Your task to perform on an android device: move an email to a new category in the gmail app Image 0: 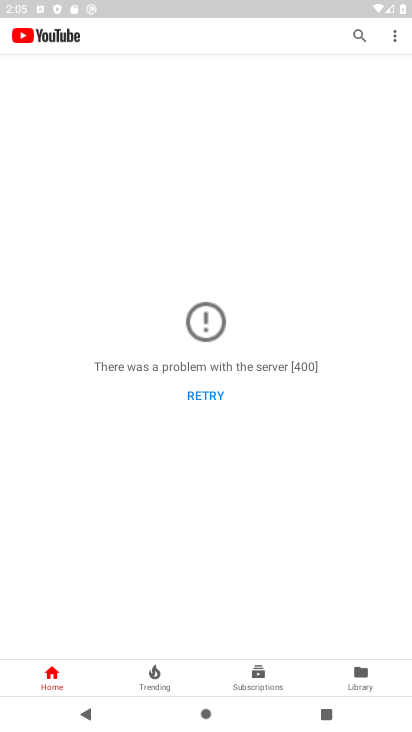
Step 0: press home button
Your task to perform on an android device: move an email to a new category in the gmail app Image 1: 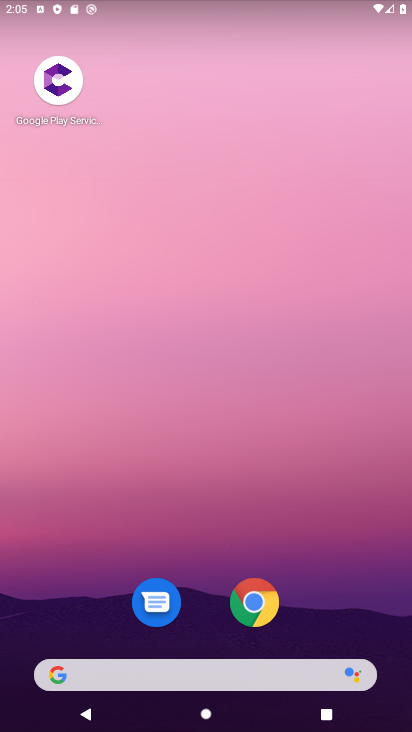
Step 1: drag from (216, 533) to (213, 302)
Your task to perform on an android device: move an email to a new category in the gmail app Image 2: 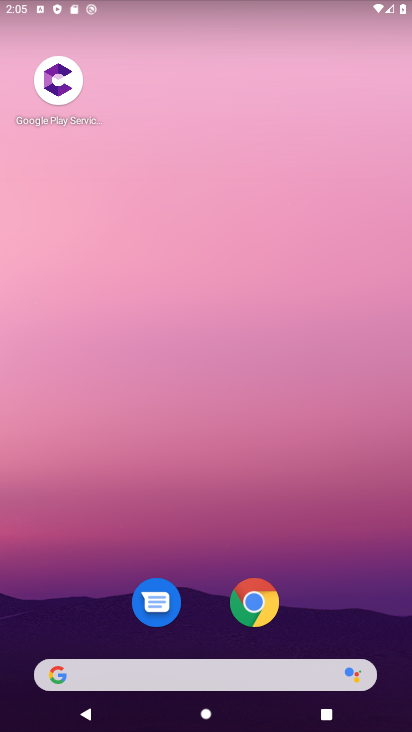
Step 2: drag from (297, 553) to (271, 154)
Your task to perform on an android device: move an email to a new category in the gmail app Image 3: 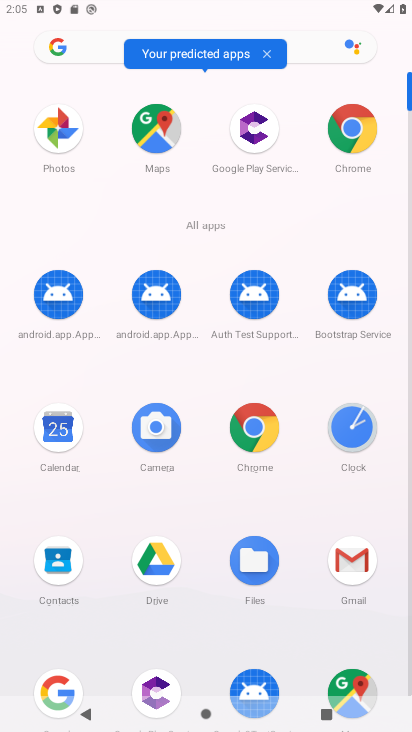
Step 3: click (355, 554)
Your task to perform on an android device: move an email to a new category in the gmail app Image 4: 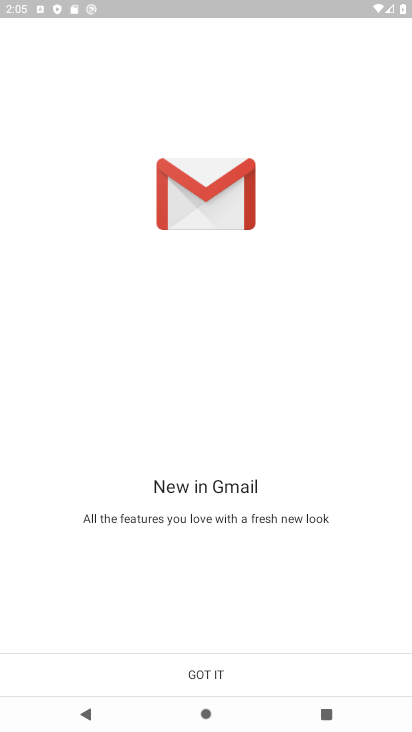
Step 4: click (211, 672)
Your task to perform on an android device: move an email to a new category in the gmail app Image 5: 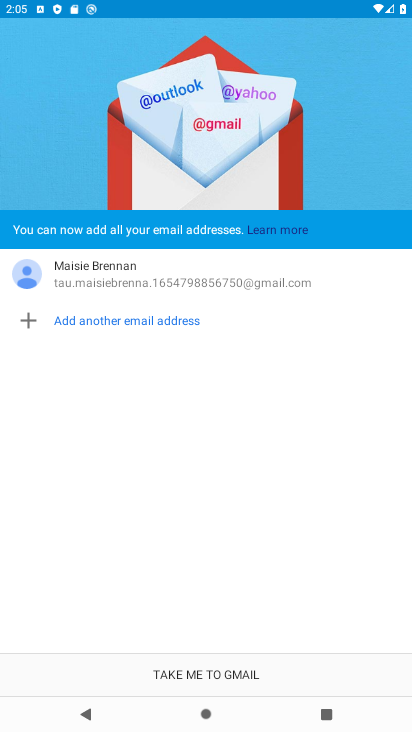
Step 5: click (211, 672)
Your task to perform on an android device: move an email to a new category in the gmail app Image 6: 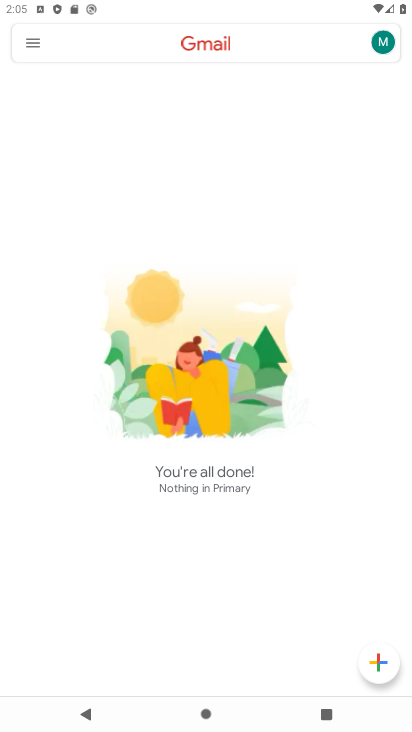
Step 6: task complete